Your task to perform on an android device: Check the weather Image 0: 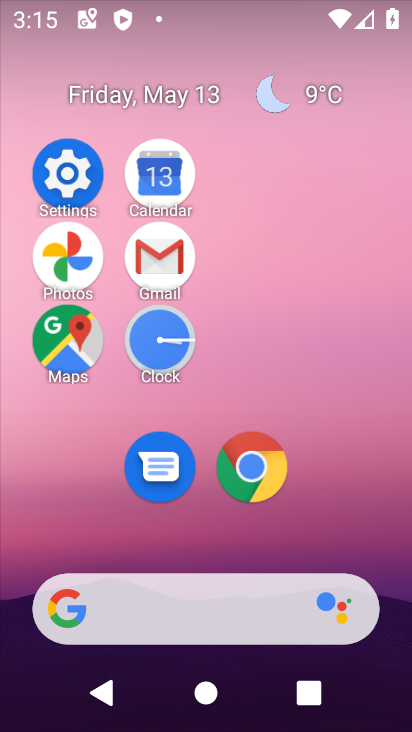
Step 0: drag from (291, 556) to (322, 84)
Your task to perform on an android device: Check the weather Image 1: 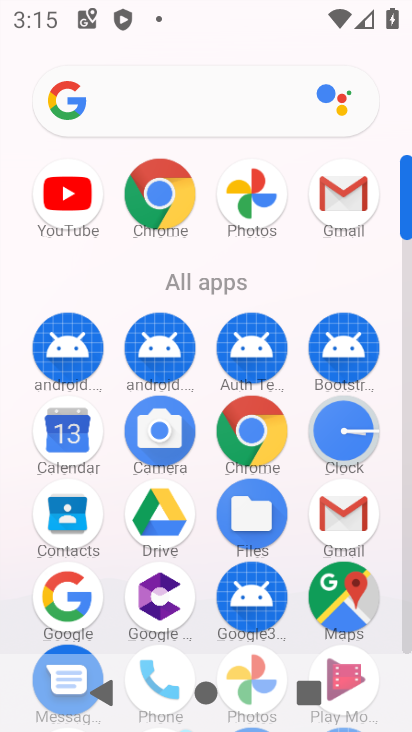
Step 1: drag from (242, 554) to (251, 238)
Your task to perform on an android device: Check the weather Image 2: 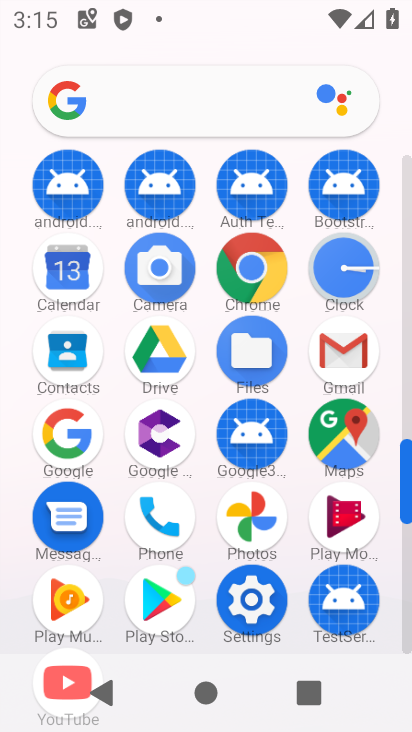
Step 2: drag from (67, 440) to (237, 210)
Your task to perform on an android device: Check the weather Image 3: 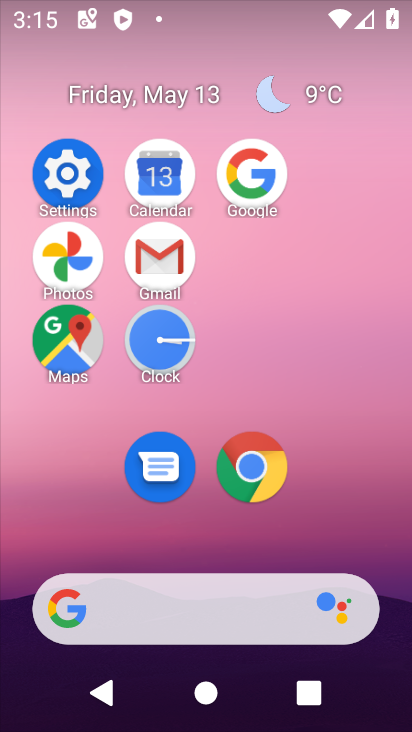
Step 3: click (262, 170)
Your task to perform on an android device: Check the weather Image 4: 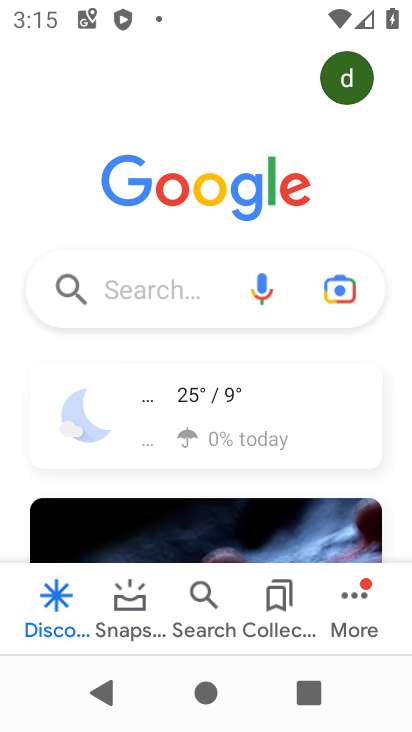
Step 4: click (124, 406)
Your task to perform on an android device: Check the weather Image 5: 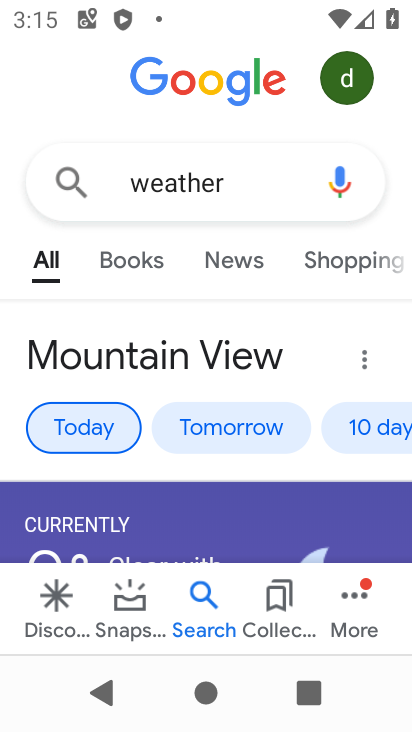
Step 5: task complete